Your task to perform on an android device: turn off improve location accuracy Image 0: 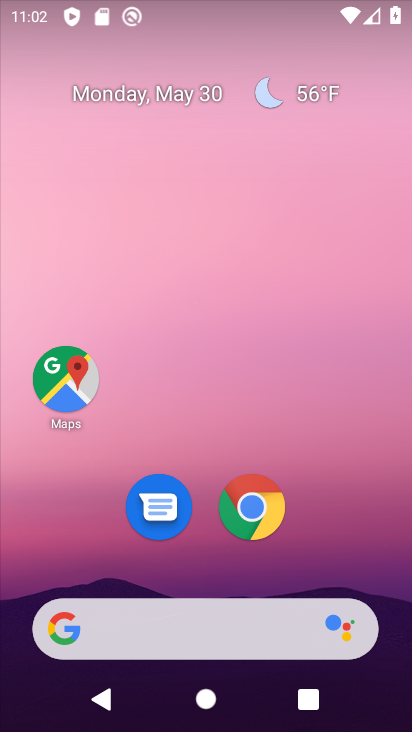
Step 0: drag from (154, 720) to (174, 197)
Your task to perform on an android device: turn off improve location accuracy Image 1: 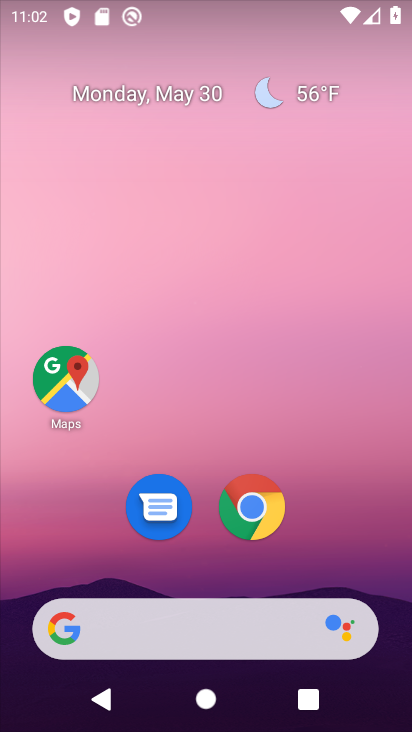
Step 1: drag from (152, 720) to (225, 1)
Your task to perform on an android device: turn off improve location accuracy Image 2: 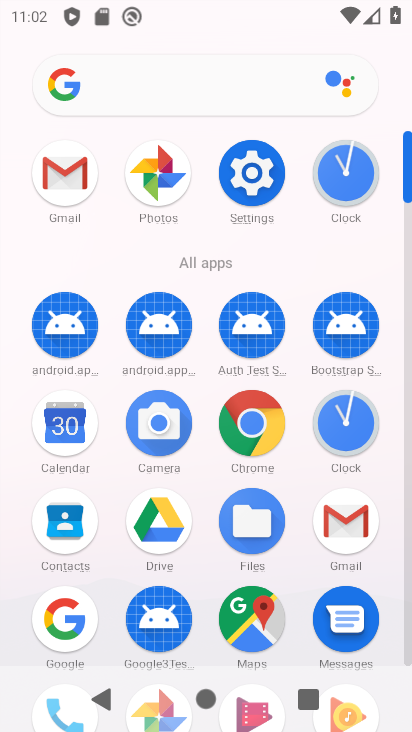
Step 2: click (241, 183)
Your task to perform on an android device: turn off improve location accuracy Image 3: 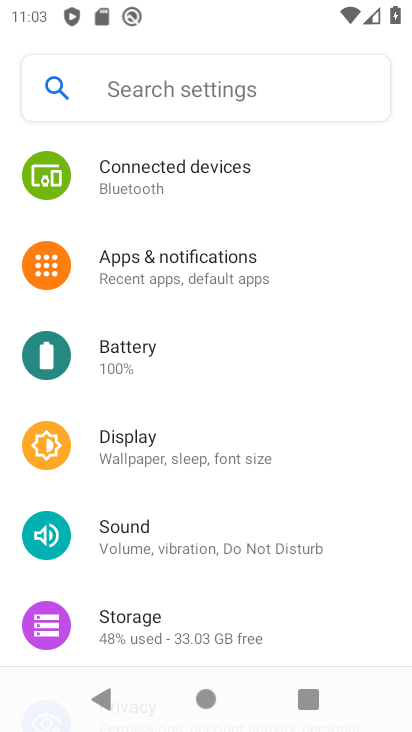
Step 3: drag from (255, 580) to (327, 226)
Your task to perform on an android device: turn off improve location accuracy Image 4: 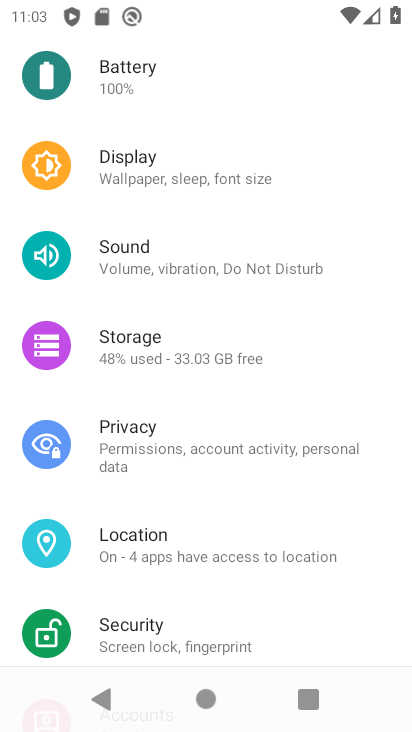
Step 4: click (117, 542)
Your task to perform on an android device: turn off improve location accuracy Image 5: 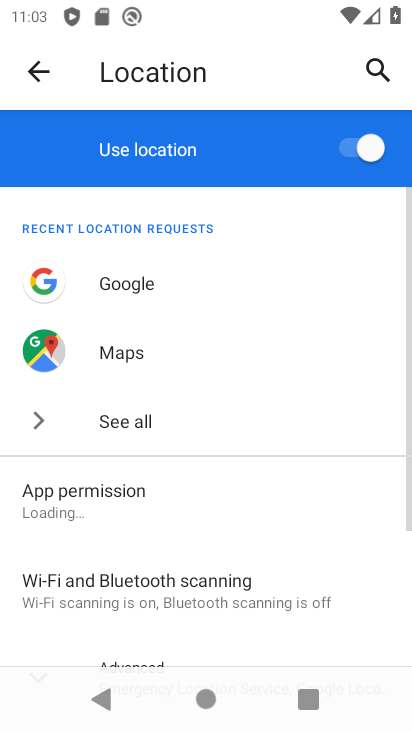
Step 5: drag from (213, 505) to (197, 187)
Your task to perform on an android device: turn off improve location accuracy Image 6: 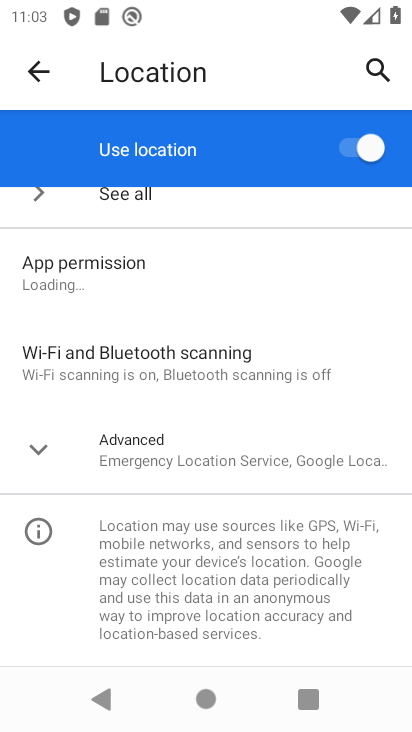
Step 6: click (175, 467)
Your task to perform on an android device: turn off improve location accuracy Image 7: 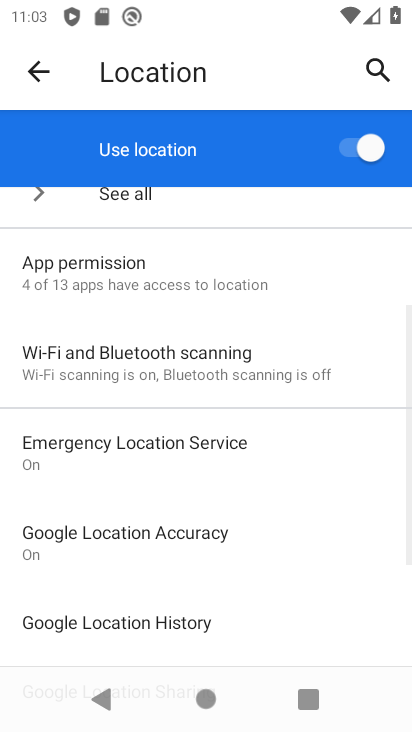
Step 7: click (194, 558)
Your task to perform on an android device: turn off improve location accuracy Image 8: 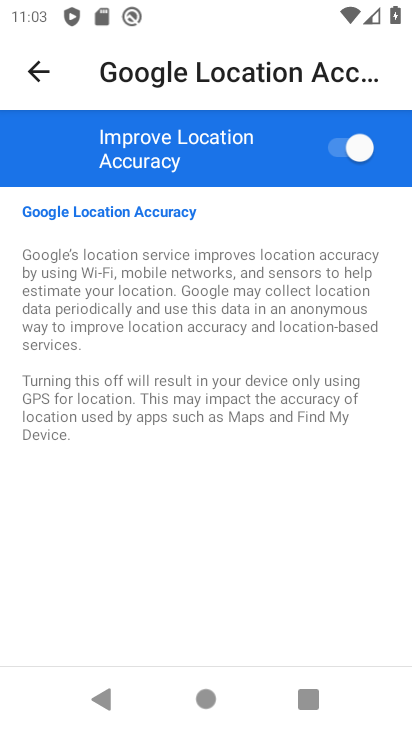
Step 8: click (360, 137)
Your task to perform on an android device: turn off improve location accuracy Image 9: 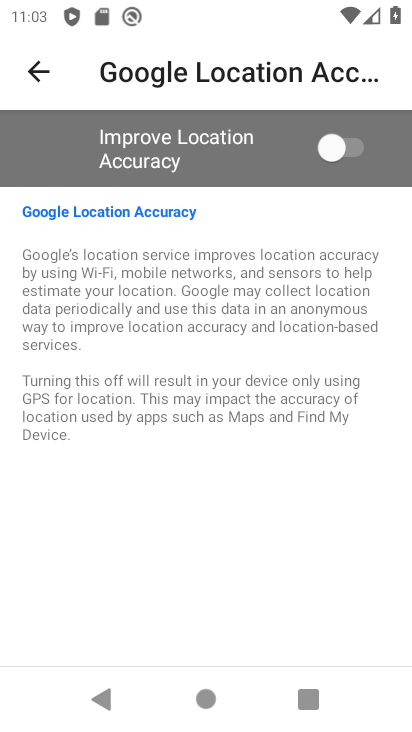
Step 9: task complete